Your task to perform on an android device: check google app version Image 0: 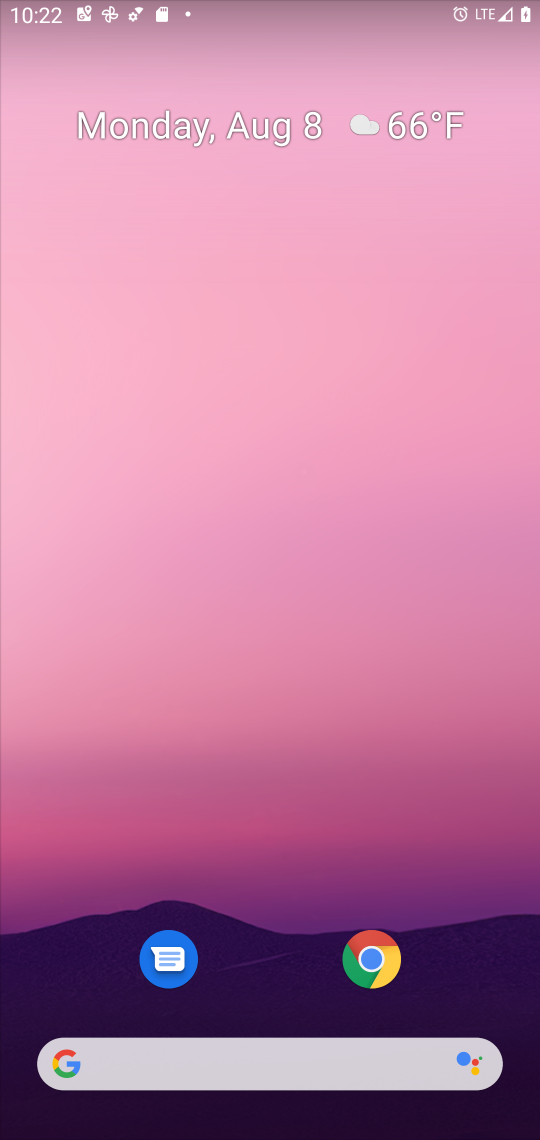
Step 0: drag from (491, 966) to (253, 54)
Your task to perform on an android device: check google app version Image 1: 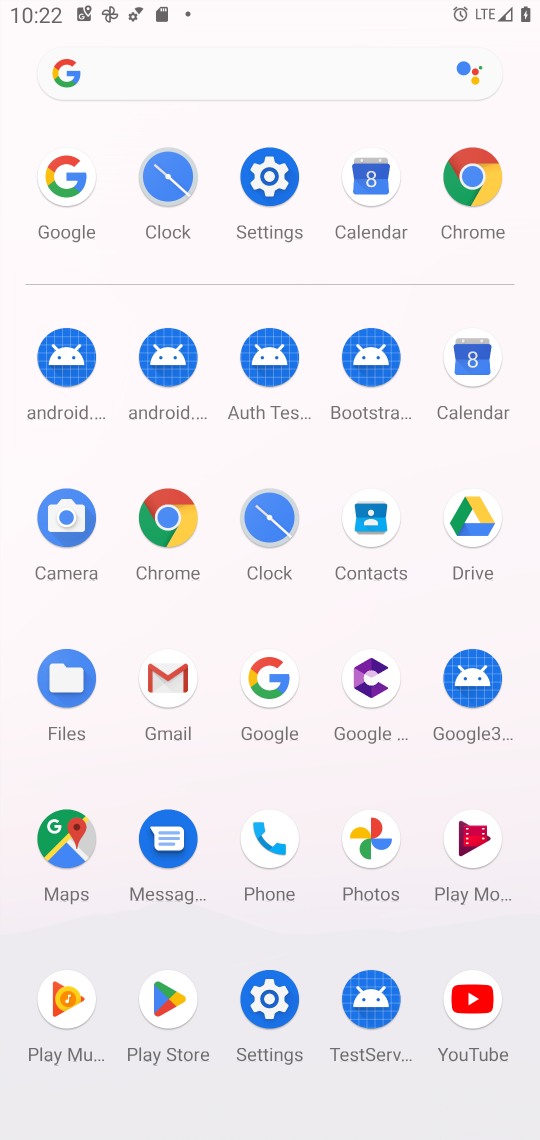
Step 1: click (268, 673)
Your task to perform on an android device: check google app version Image 2: 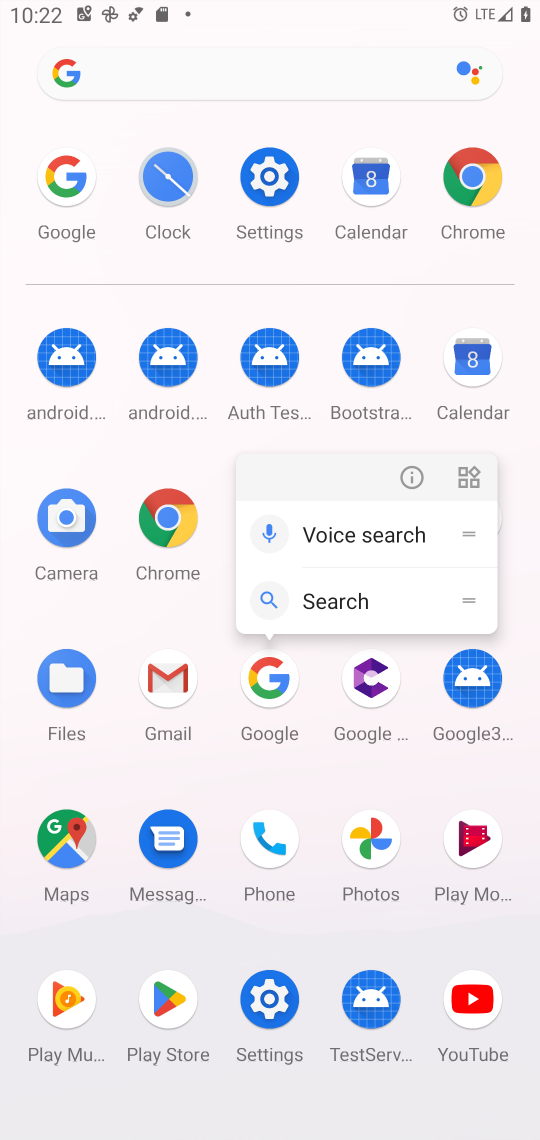
Step 2: click (405, 479)
Your task to perform on an android device: check google app version Image 3: 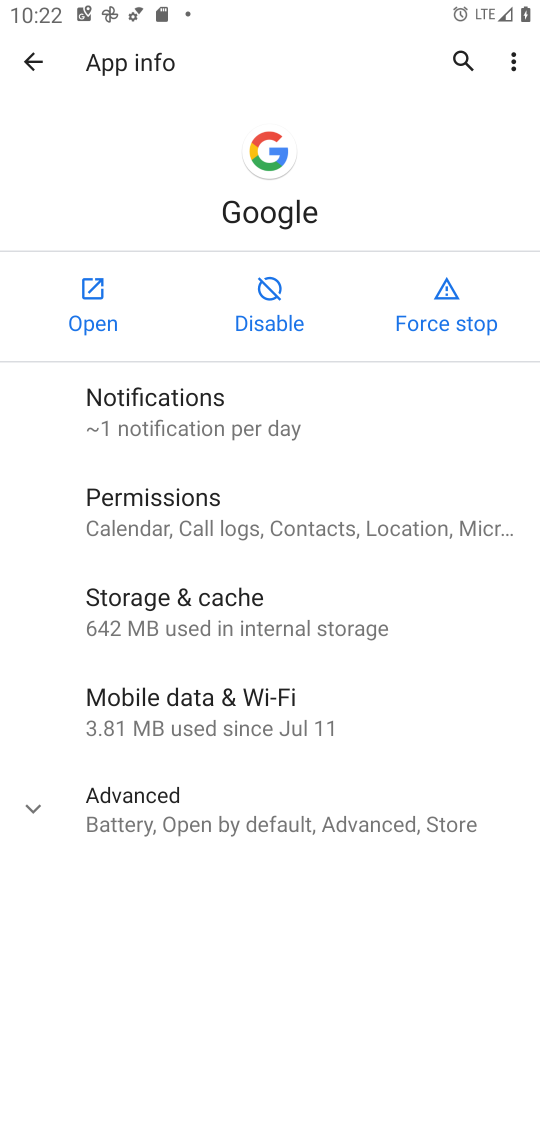
Step 3: click (171, 794)
Your task to perform on an android device: check google app version Image 4: 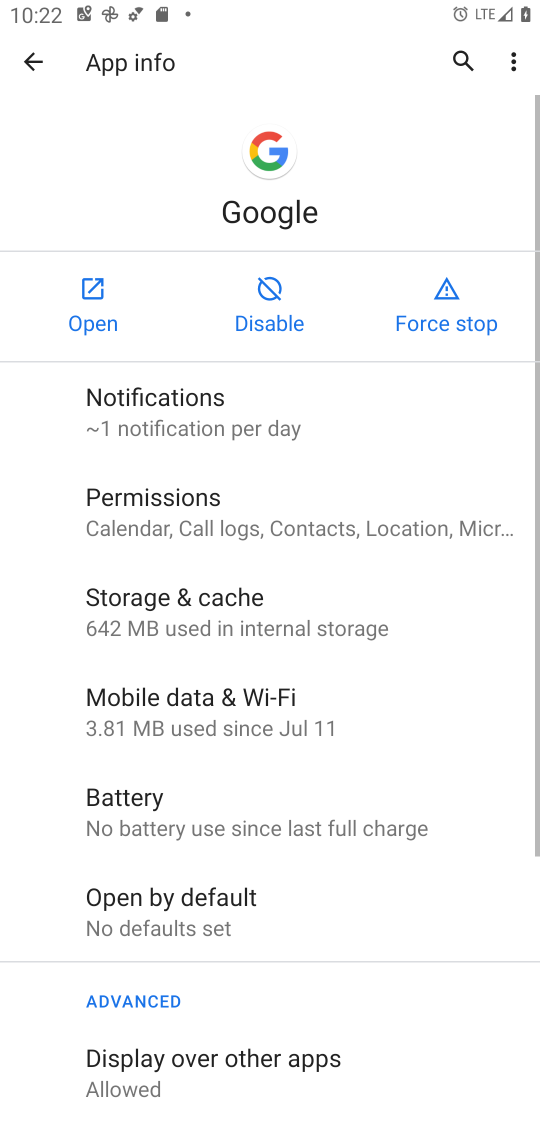
Step 4: task complete